Your task to perform on an android device: Search for pizza restaurants on Maps Image 0: 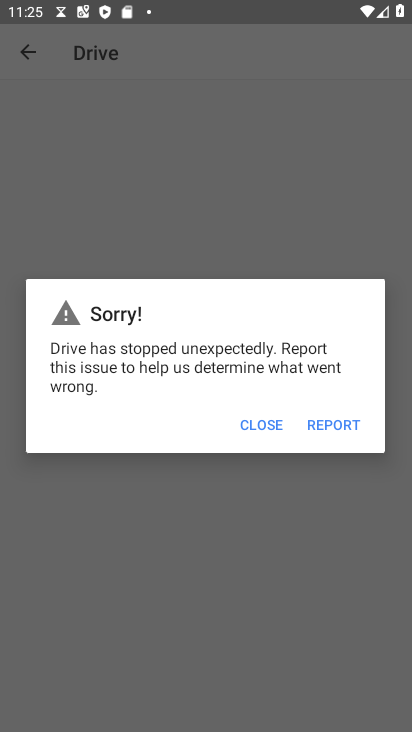
Step 0: press home button
Your task to perform on an android device: Search for pizza restaurants on Maps Image 1: 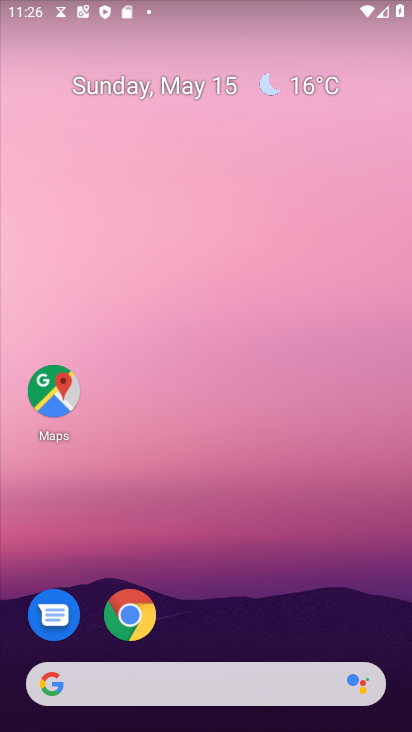
Step 1: drag from (205, 640) to (295, 189)
Your task to perform on an android device: Search for pizza restaurants on Maps Image 2: 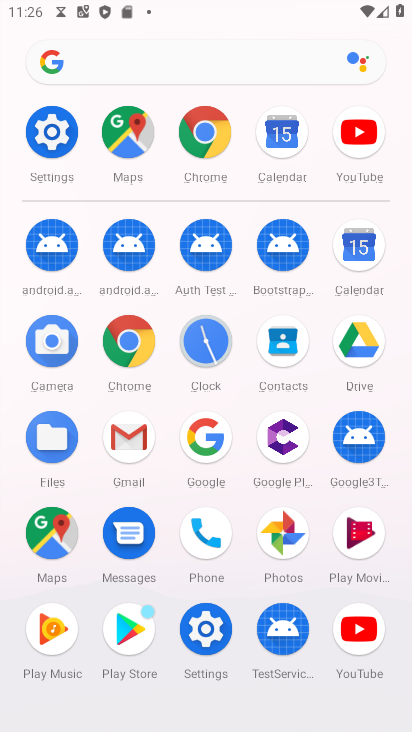
Step 2: click (41, 548)
Your task to perform on an android device: Search for pizza restaurants on Maps Image 3: 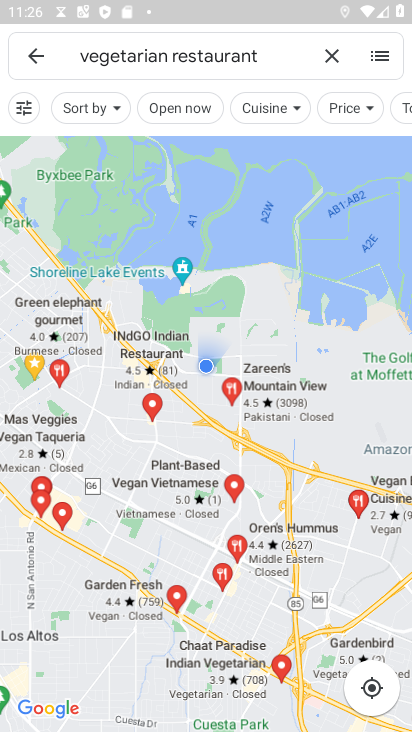
Step 3: click (361, 64)
Your task to perform on an android device: Search for pizza restaurants on Maps Image 4: 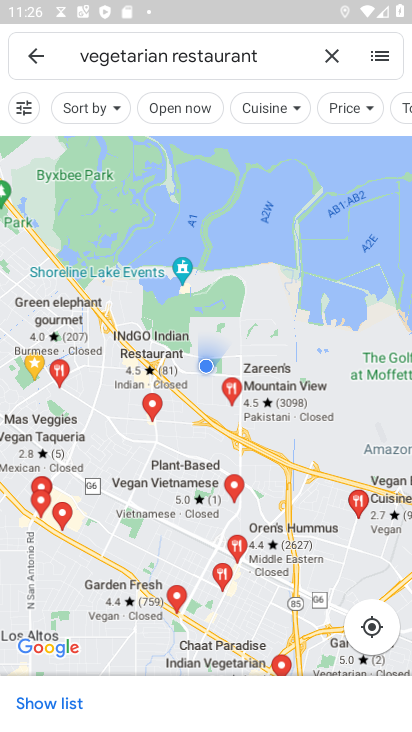
Step 4: click (361, 64)
Your task to perform on an android device: Search for pizza restaurants on Maps Image 5: 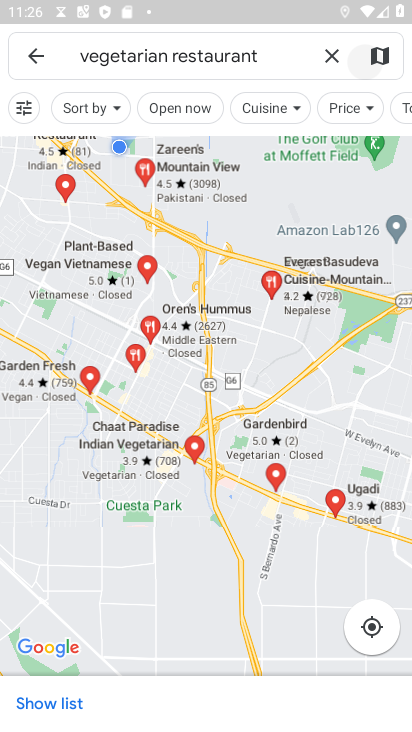
Step 5: click (336, 62)
Your task to perform on an android device: Search for pizza restaurants on Maps Image 6: 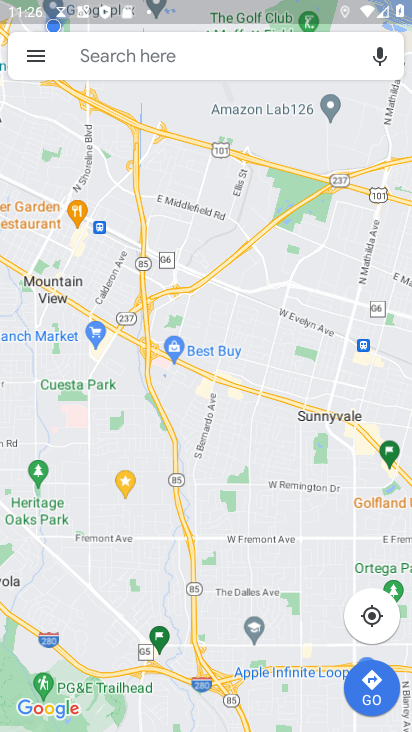
Step 6: click (331, 53)
Your task to perform on an android device: Search for pizza restaurants on Maps Image 7: 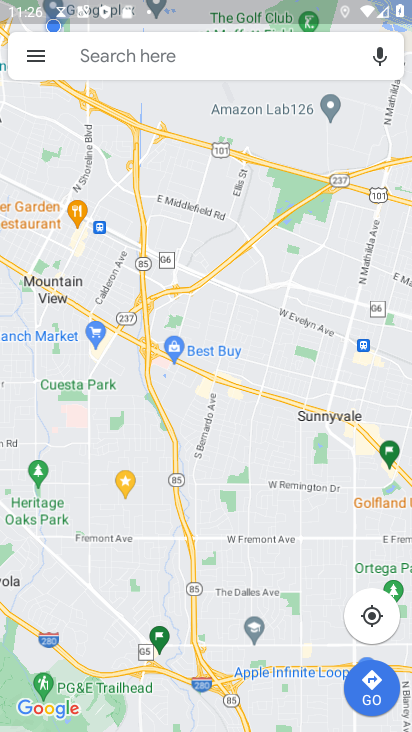
Step 7: click (331, 53)
Your task to perform on an android device: Search for pizza restaurants on Maps Image 8: 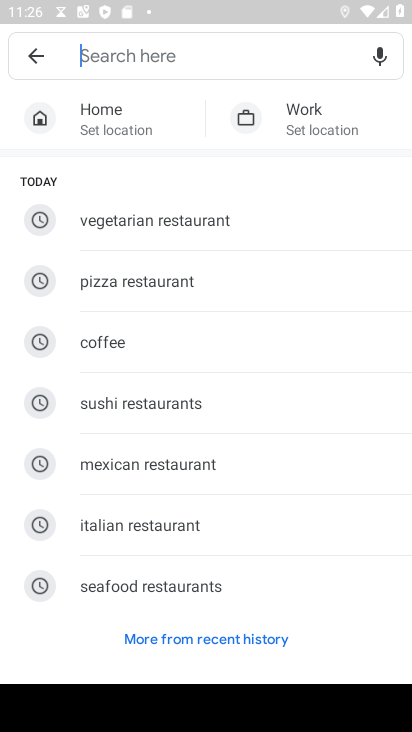
Step 8: click (162, 275)
Your task to perform on an android device: Search for pizza restaurants on Maps Image 9: 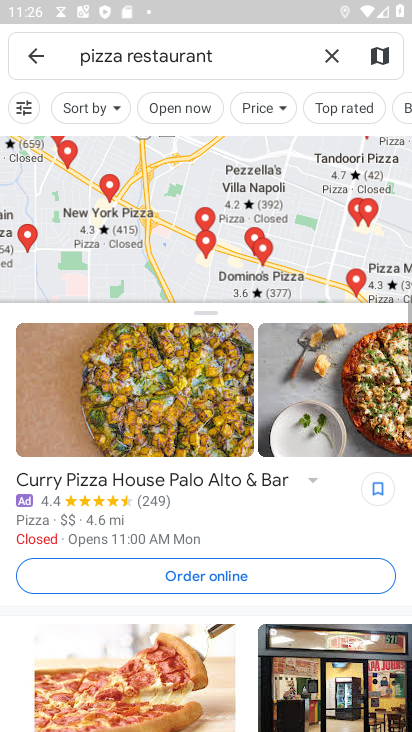
Step 9: task complete